Your task to perform on an android device: Show me the alarms in the clock app Image 0: 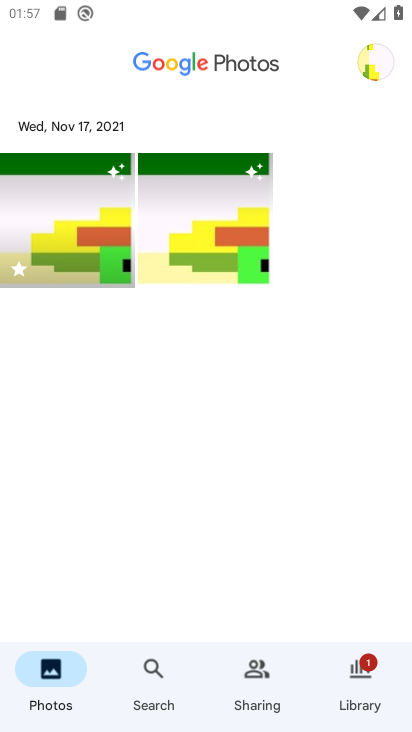
Step 0: press home button
Your task to perform on an android device: Show me the alarms in the clock app Image 1: 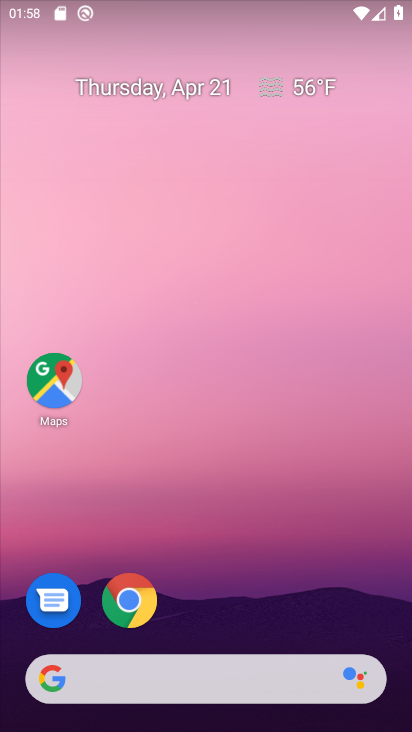
Step 1: drag from (311, 519) to (341, 143)
Your task to perform on an android device: Show me the alarms in the clock app Image 2: 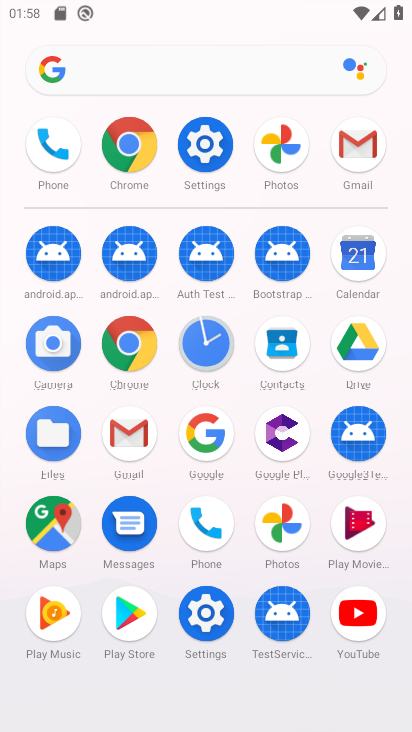
Step 2: click (214, 343)
Your task to perform on an android device: Show me the alarms in the clock app Image 3: 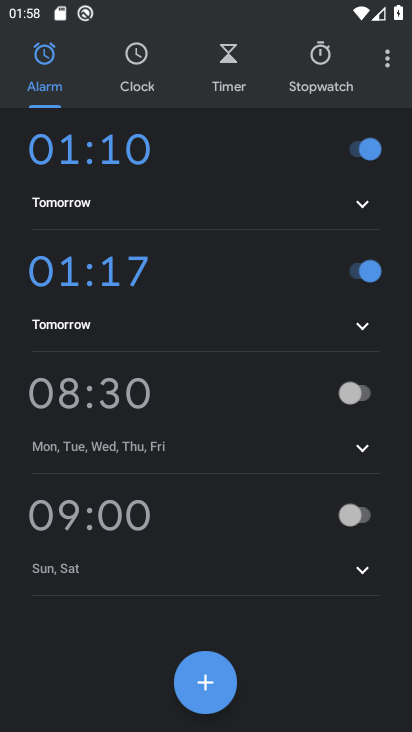
Step 3: task complete